Your task to perform on an android device: Empty the shopping cart on bestbuy.com. Add "razer blade" to the cart on bestbuy.com Image 0: 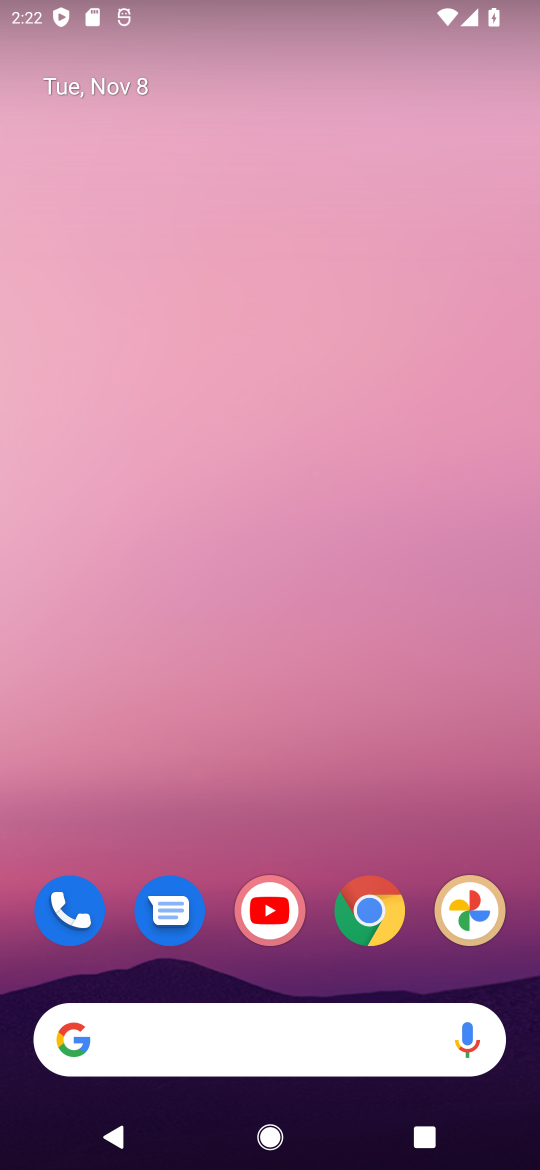
Step 0: drag from (334, 886) to (329, 175)
Your task to perform on an android device: Empty the shopping cart on bestbuy.com. Add "razer blade" to the cart on bestbuy.com Image 1: 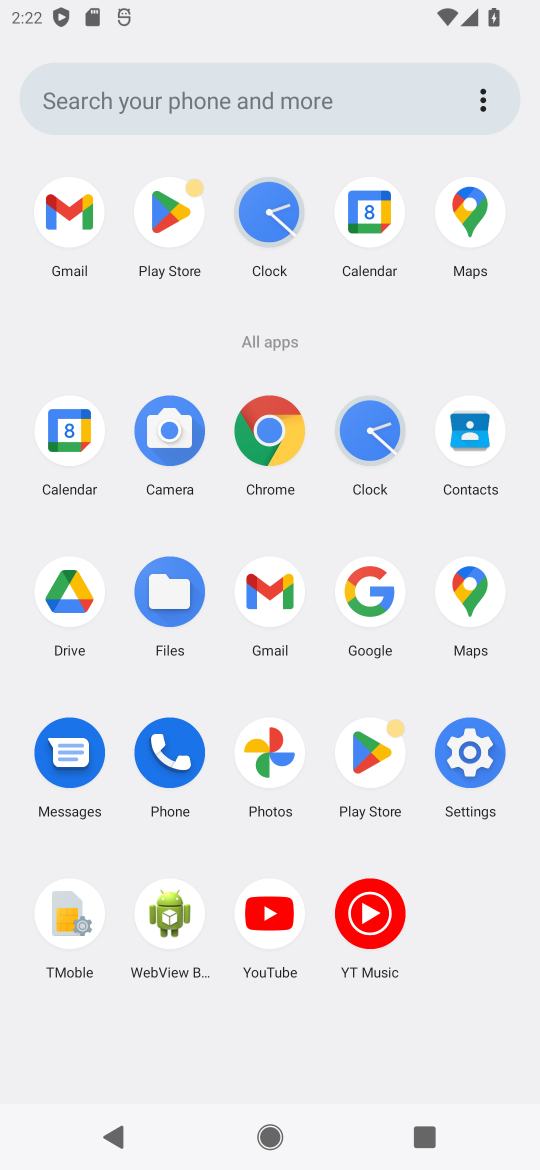
Step 1: click (281, 439)
Your task to perform on an android device: Empty the shopping cart on bestbuy.com. Add "razer blade" to the cart on bestbuy.com Image 2: 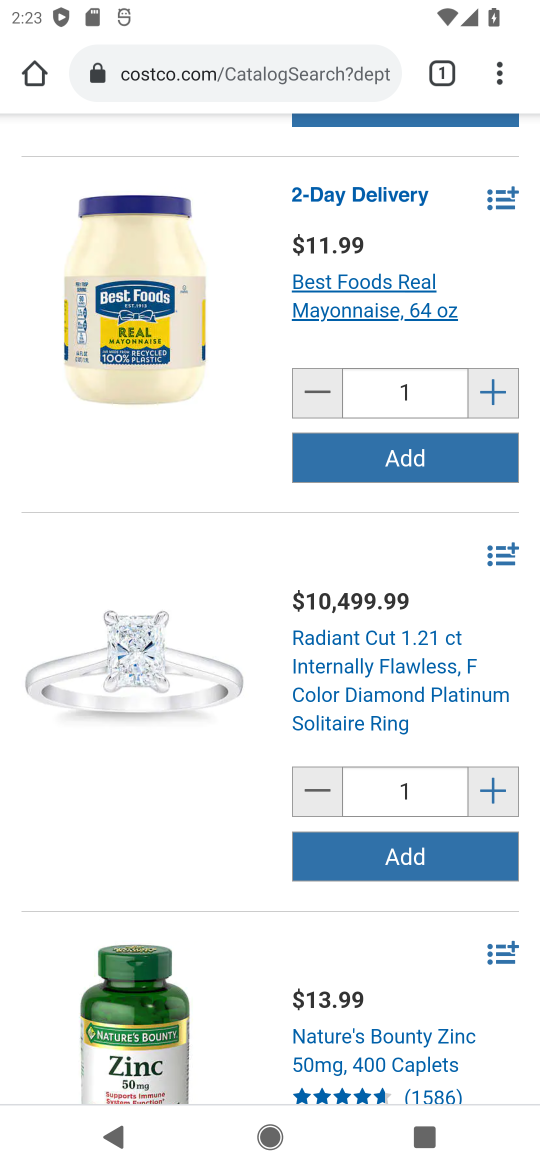
Step 2: click (312, 72)
Your task to perform on an android device: Empty the shopping cart on bestbuy.com. Add "razer blade" to the cart on bestbuy.com Image 3: 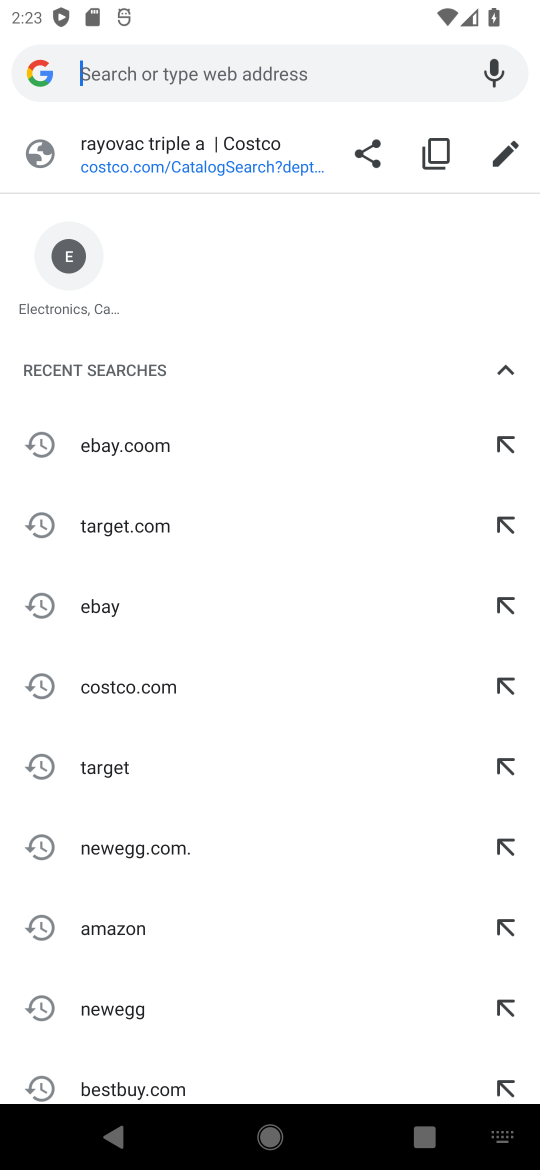
Step 3: type "bestybuy.com"
Your task to perform on an android device: Empty the shopping cart on bestbuy.com. Add "razer blade" to the cart on bestbuy.com Image 4: 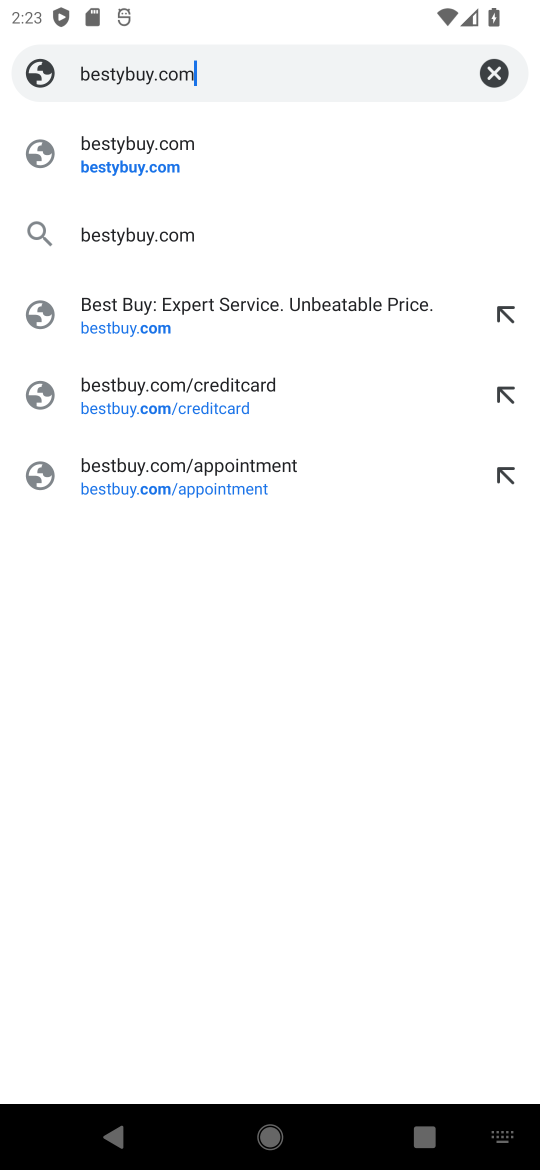
Step 4: press enter
Your task to perform on an android device: Empty the shopping cart on bestbuy.com. Add "razer blade" to the cart on bestbuy.com Image 5: 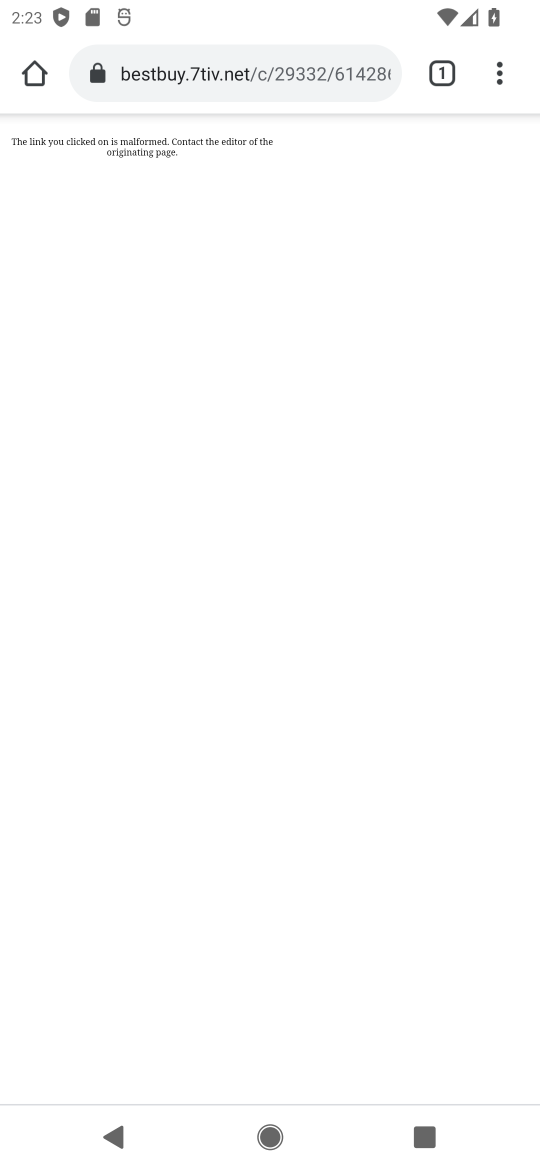
Step 5: click (283, 72)
Your task to perform on an android device: Empty the shopping cart on bestbuy.com. Add "razer blade" to the cart on bestbuy.com Image 6: 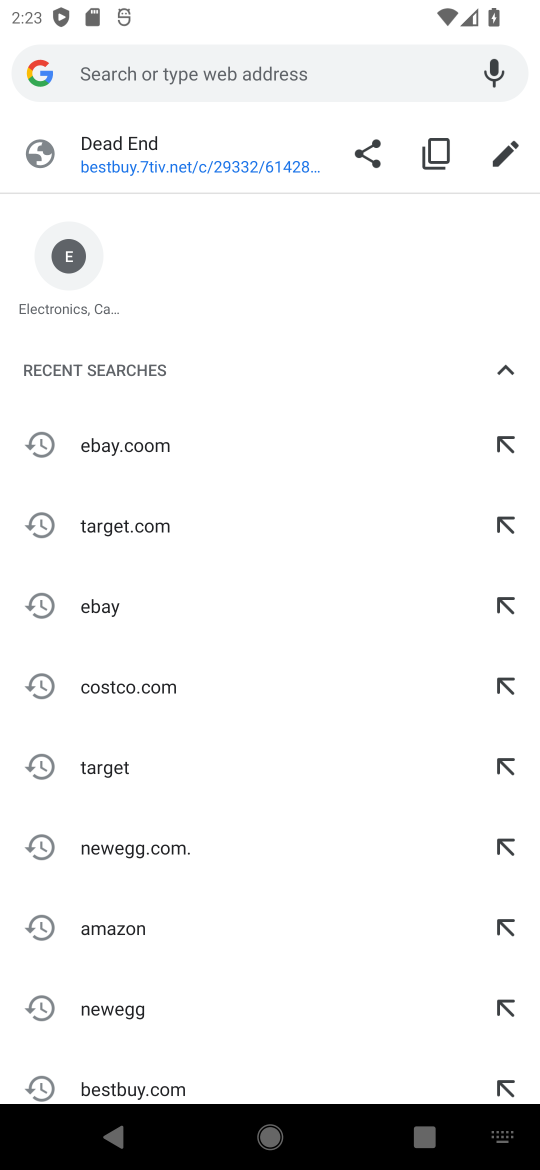
Step 6: type "bestbuy.com"
Your task to perform on an android device: Empty the shopping cart on bestbuy.com. Add "razer blade" to the cart on bestbuy.com Image 7: 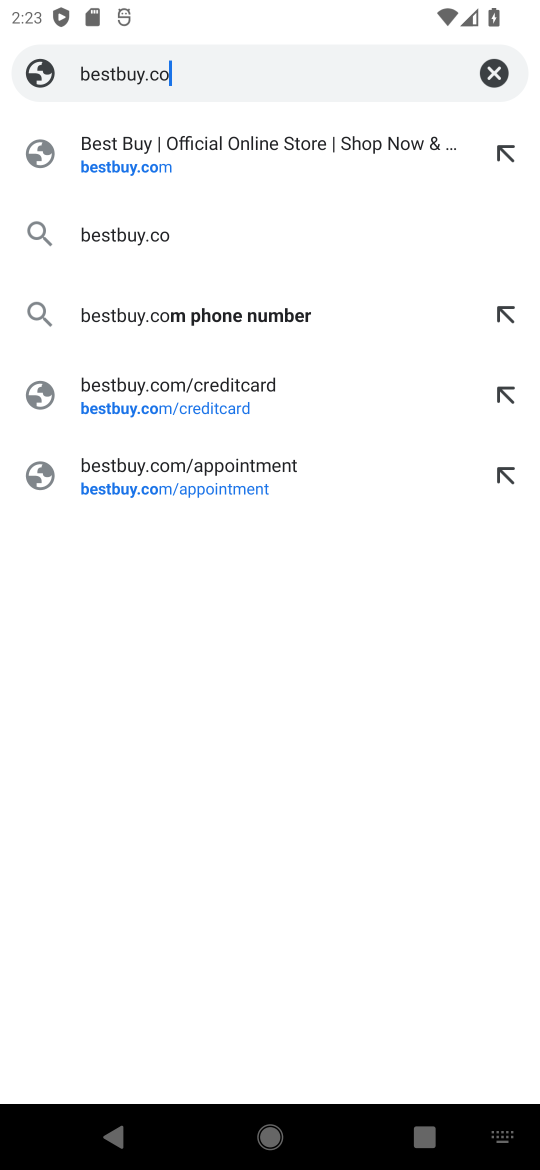
Step 7: press enter
Your task to perform on an android device: Empty the shopping cart on bestbuy.com. Add "razer blade" to the cart on bestbuy.com Image 8: 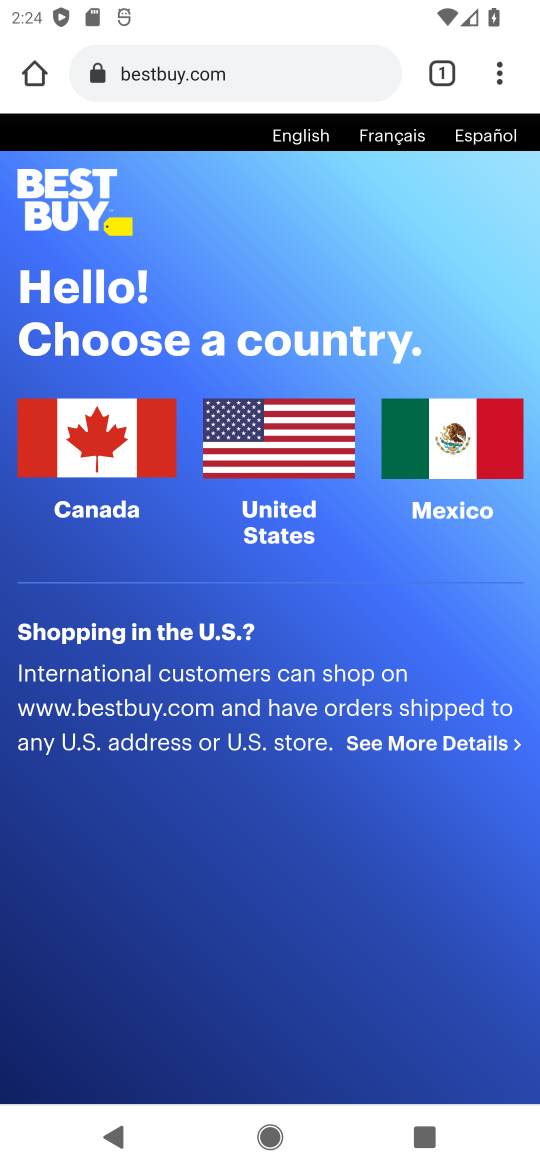
Step 8: click (65, 429)
Your task to perform on an android device: Empty the shopping cart on bestbuy.com. Add "razer blade" to the cart on bestbuy.com Image 9: 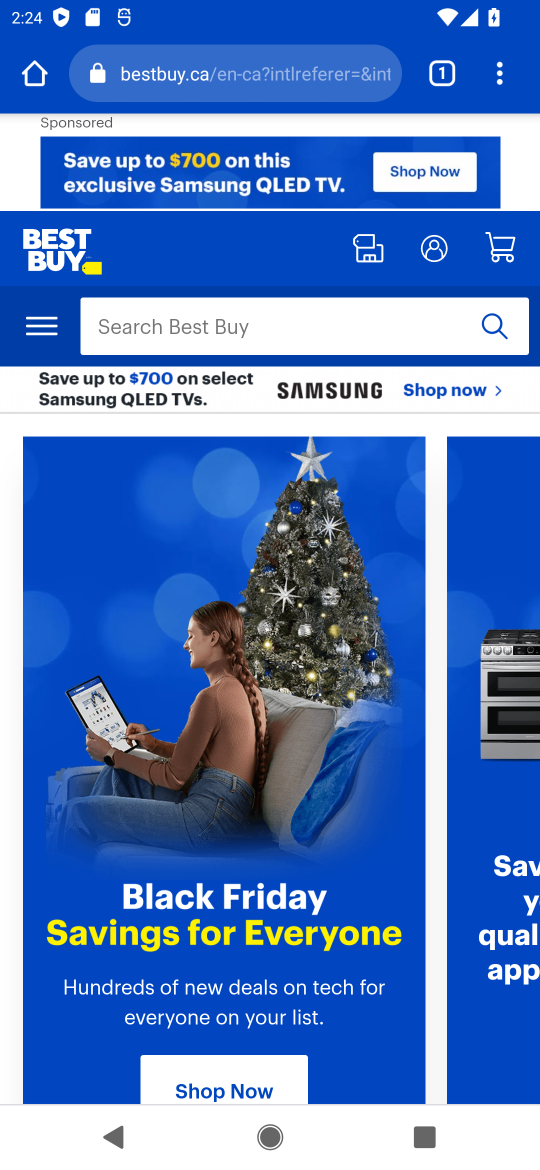
Step 9: click (506, 250)
Your task to perform on an android device: Empty the shopping cart on bestbuy.com. Add "razer blade" to the cart on bestbuy.com Image 10: 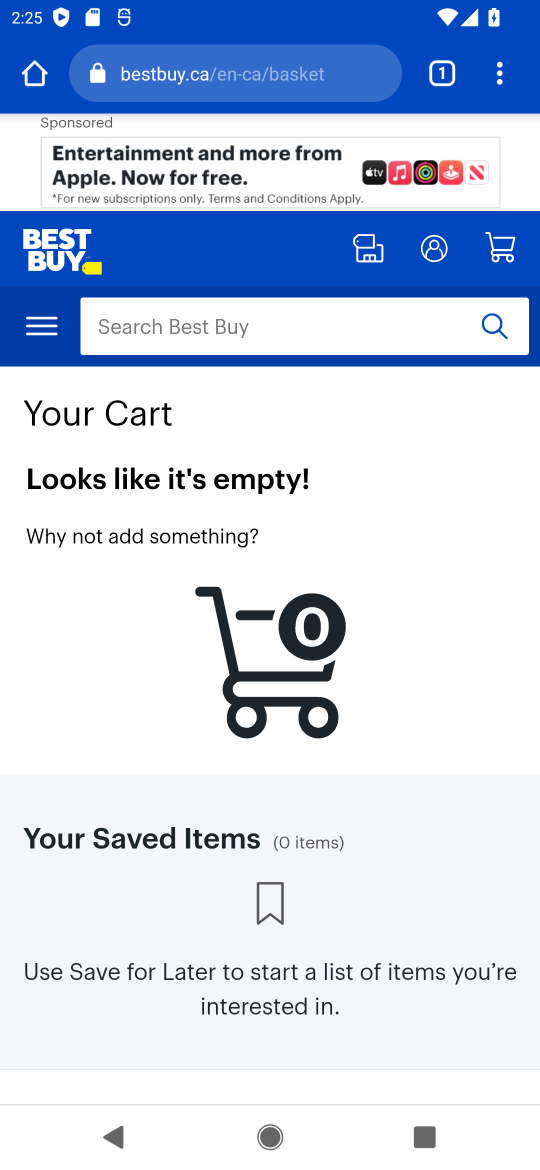
Step 10: click (288, 333)
Your task to perform on an android device: Empty the shopping cart on bestbuy.com. Add "razer blade" to the cart on bestbuy.com Image 11: 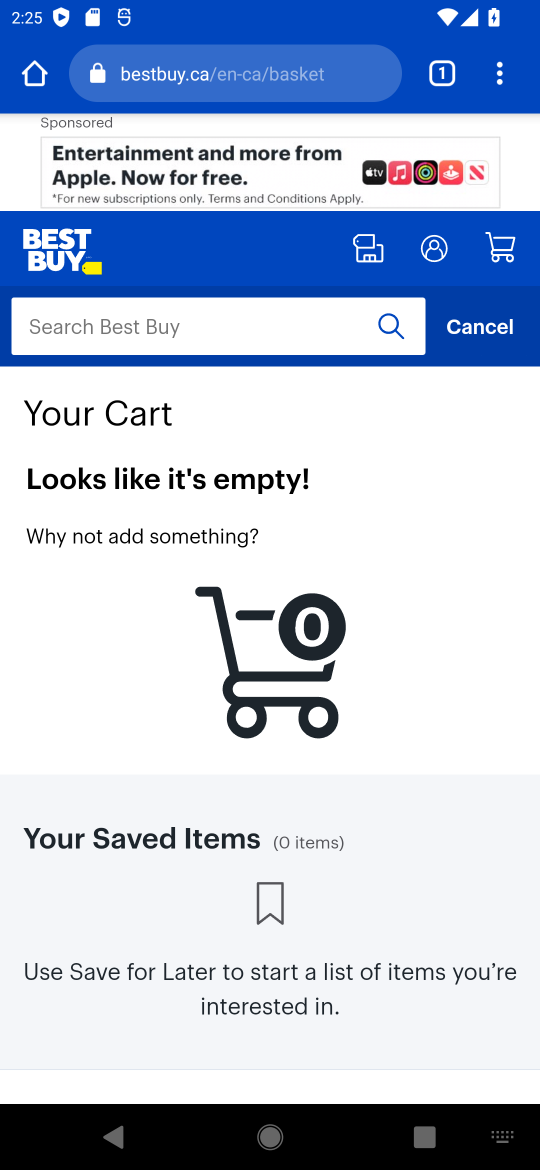
Step 11: type "razer blade"
Your task to perform on an android device: Empty the shopping cart on bestbuy.com. Add "razer blade" to the cart on bestbuy.com Image 12: 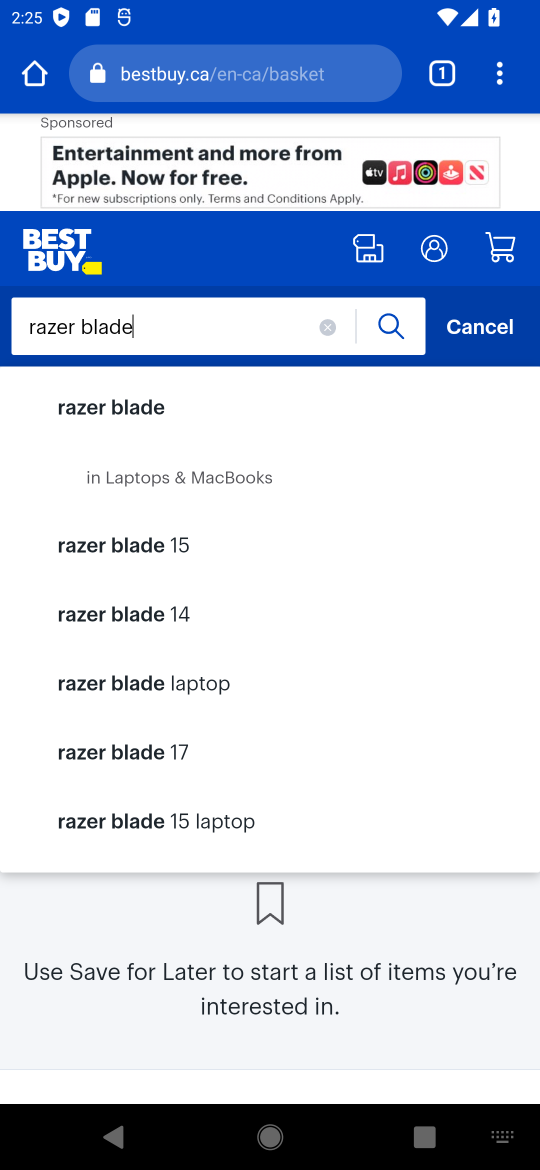
Step 12: press enter
Your task to perform on an android device: Empty the shopping cart on bestbuy.com. Add "razer blade" to the cart on bestbuy.com Image 13: 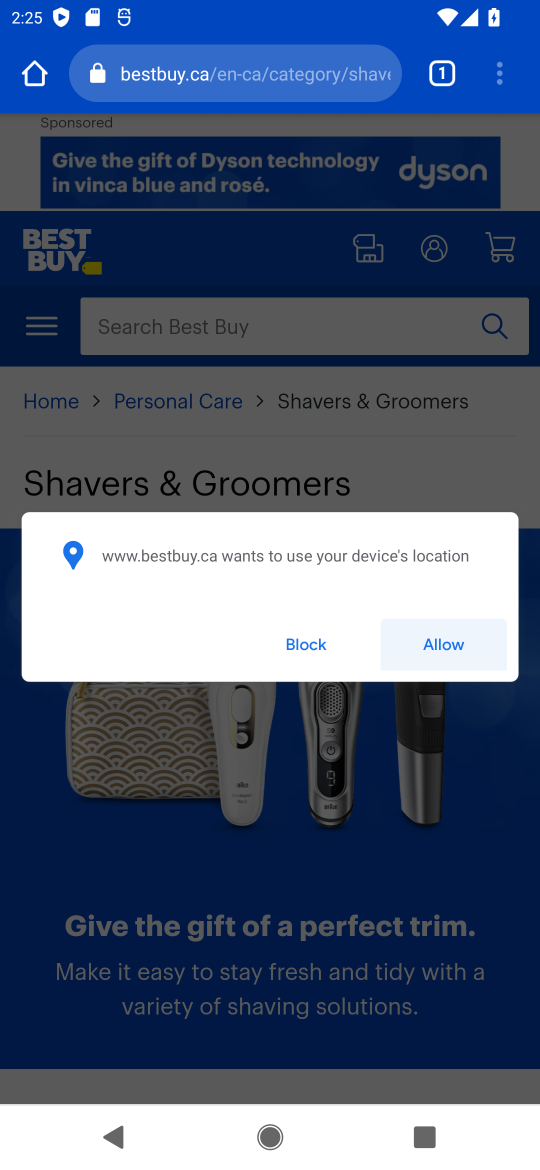
Step 13: click (301, 655)
Your task to perform on an android device: Empty the shopping cart on bestbuy.com. Add "razer blade" to the cart on bestbuy.com Image 14: 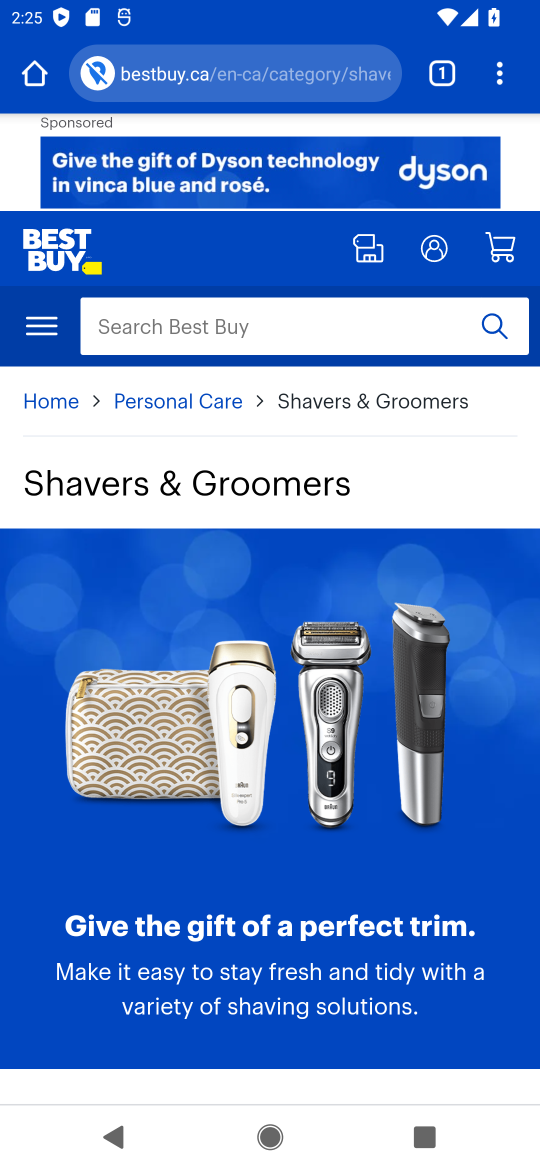
Step 14: click (495, 236)
Your task to perform on an android device: Empty the shopping cart on bestbuy.com. Add "razer blade" to the cart on bestbuy.com Image 15: 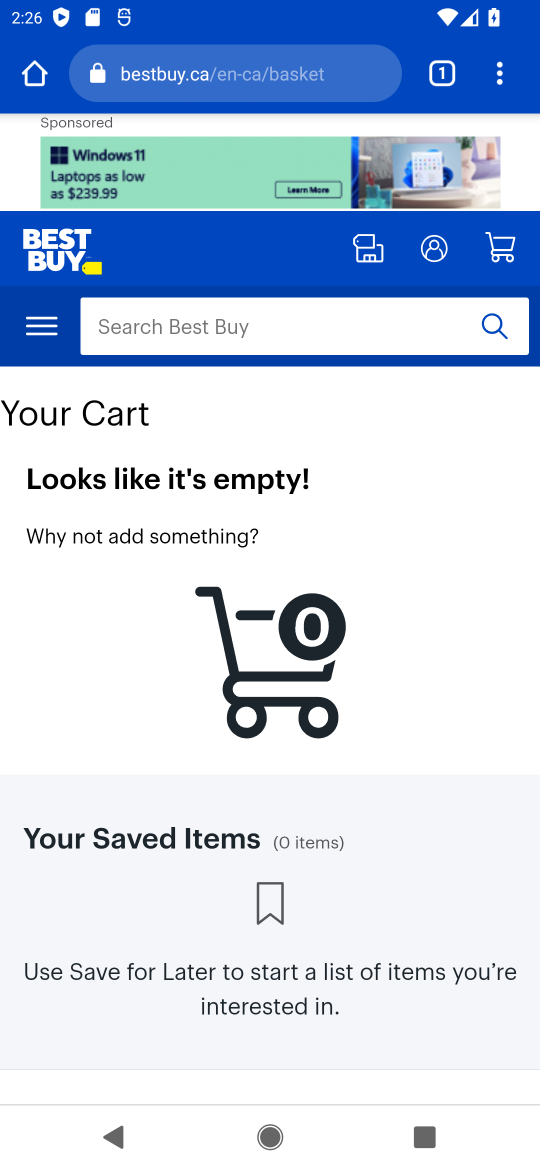
Step 15: task complete